Your task to perform on an android device: Go to eBay Image 0: 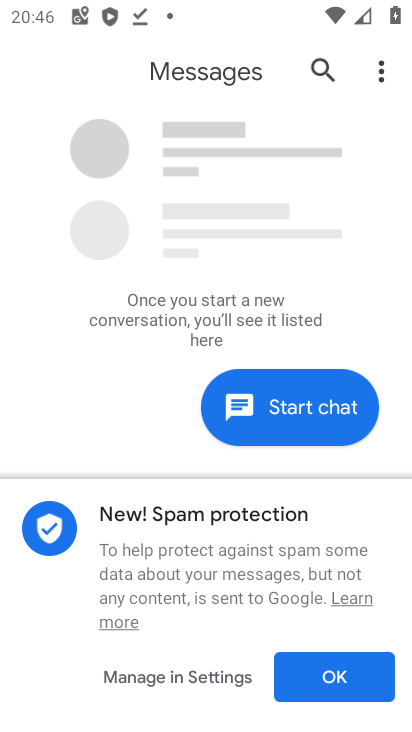
Step 0: press home button
Your task to perform on an android device: Go to eBay Image 1: 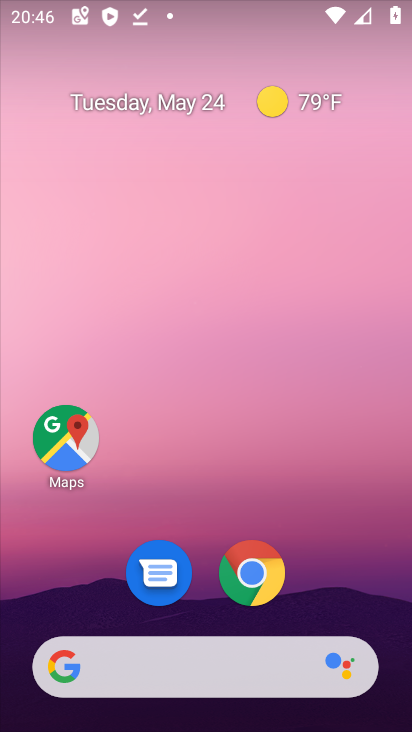
Step 1: drag from (333, 689) to (296, 490)
Your task to perform on an android device: Go to eBay Image 2: 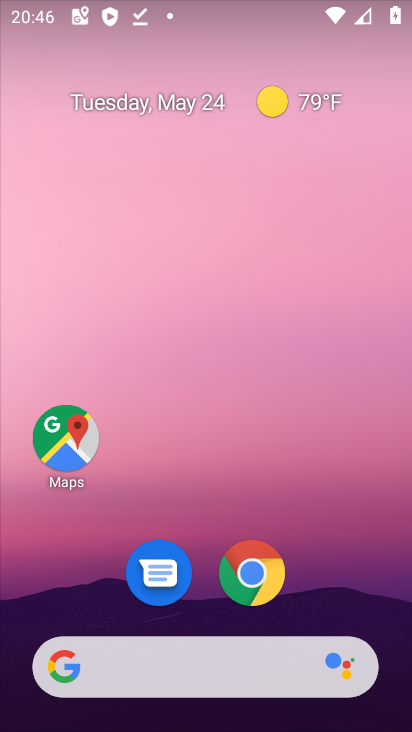
Step 2: drag from (332, 603) to (186, 16)
Your task to perform on an android device: Go to eBay Image 3: 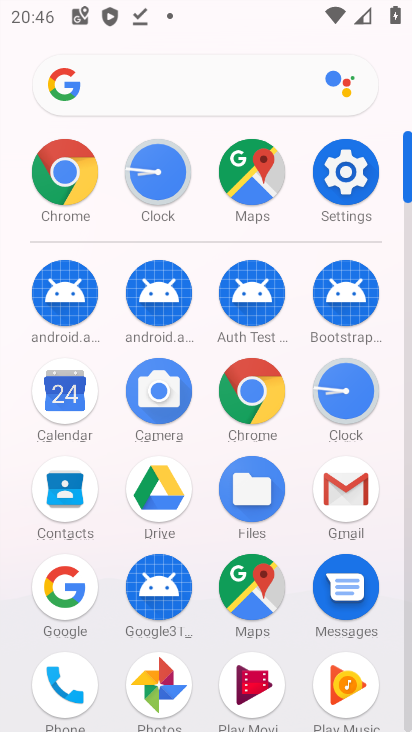
Step 3: click (68, 174)
Your task to perform on an android device: Go to eBay Image 4: 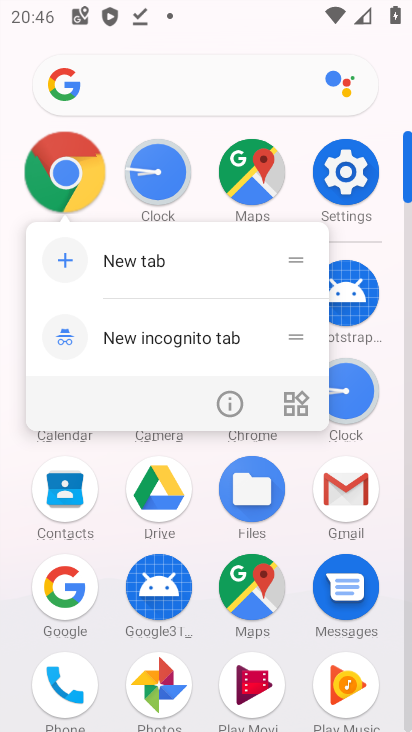
Step 4: click (72, 169)
Your task to perform on an android device: Go to eBay Image 5: 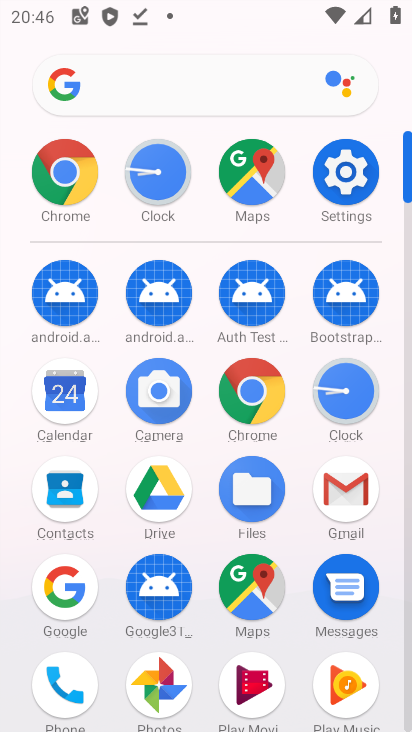
Step 5: click (62, 173)
Your task to perform on an android device: Go to eBay Image 6: 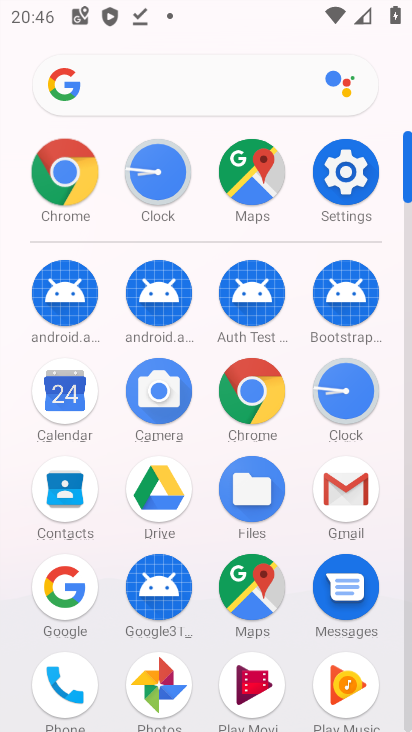
Step 6: click (66, 174)
Your task to perform on an android device: Go to eBay Image 7: 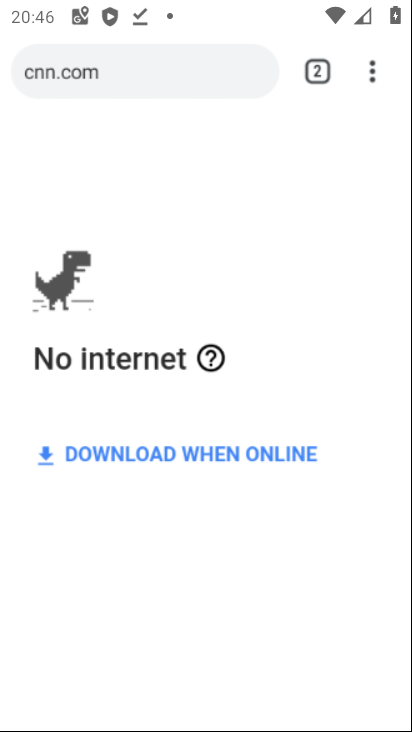
Step 7: click (70, 175)
Your task to perform on an android device: Go to eBay Image 8: 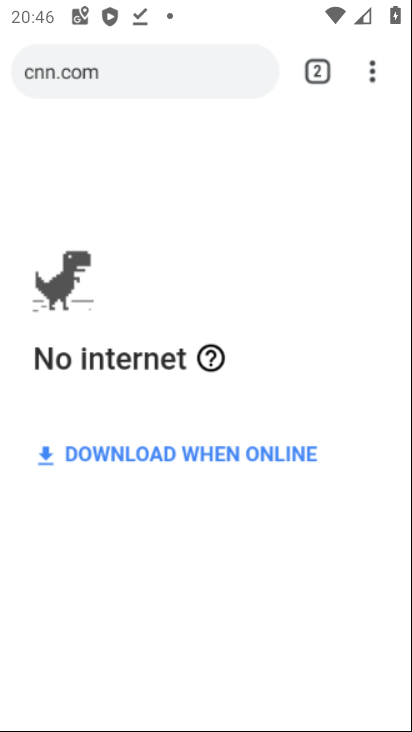
Step 8: click (73, 175)
Your task to perform on an android device: Go to eBay Image 9: 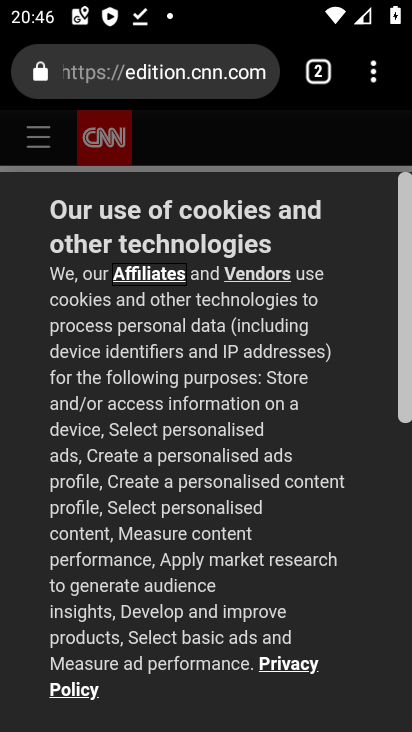
Step 9: task complete